Your task to perform on an android device: Open the calendar and show me this week's events Image 0: 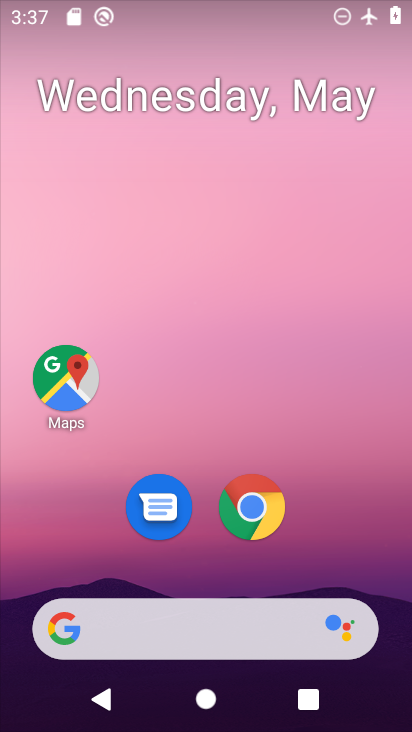
Step 0: drag from (244, 524) to (319, 14)
Your task to perform on an android device: Open the calendar and show me this week's events Image 1: 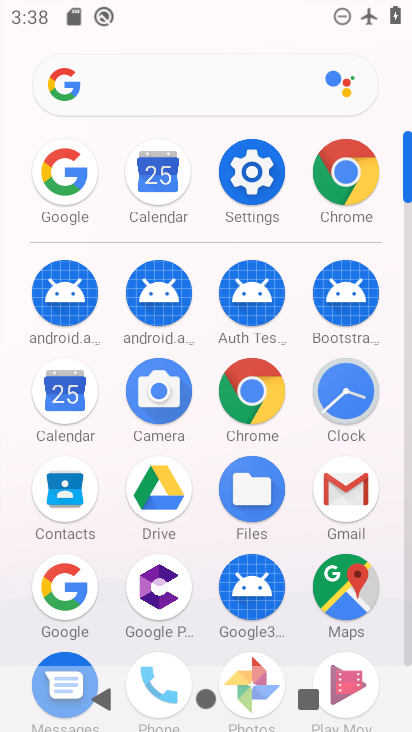
Step 1: click (71, 395)
Your task to perform on an android device: Open the calendar and show me this week's events Image 2: 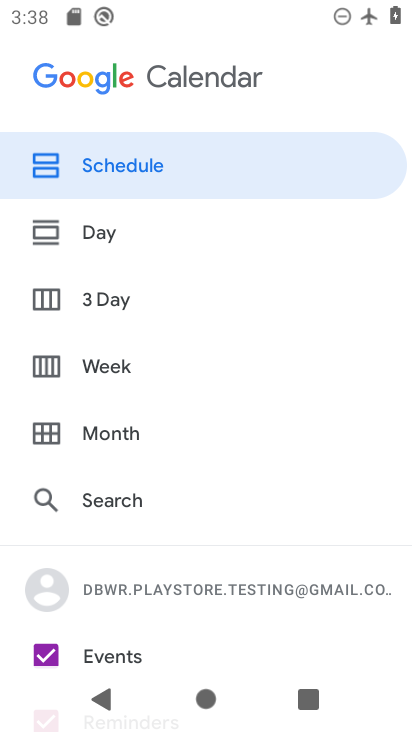
Step 2: press back button
Your task to perform on an android device: Open the calendar and show me this week's events Image 3: 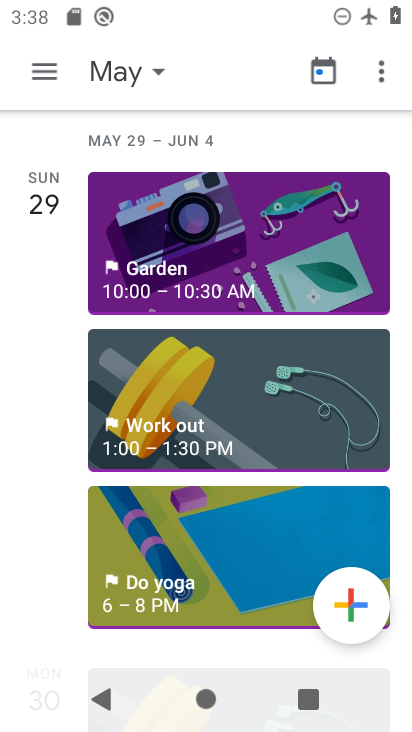
Step 3: click (135, 71)
Your task to perform on an android device: Open the calendar and show me this week's events Image 4: 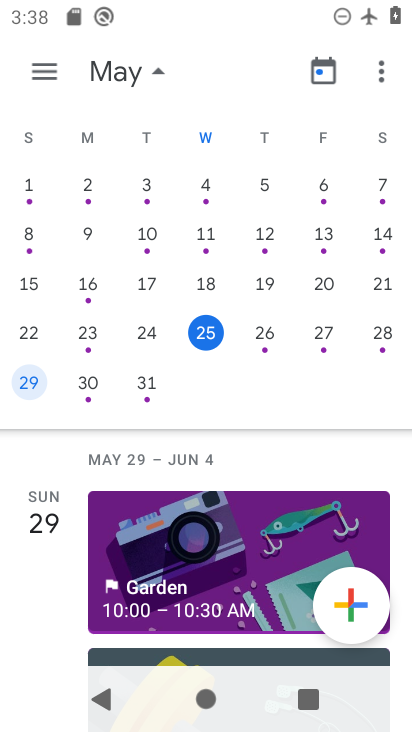
Step 4: click (203, 339)
Your task to perform on an android device: Open the calendar and show me this week's events Image 5: 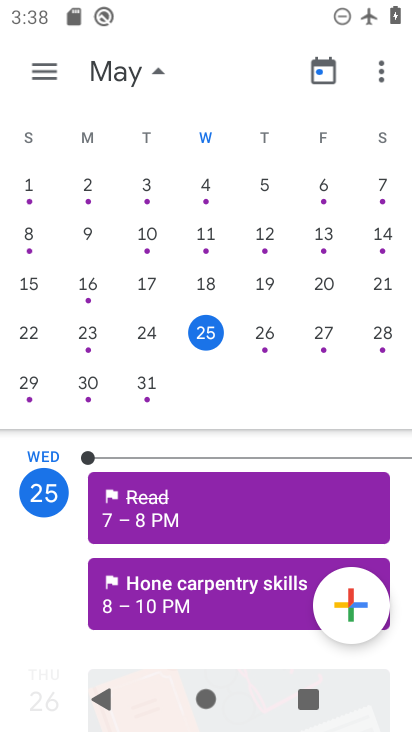
Step 5: task complete